Your task to perform on an android device: snooze an email in the gmail app Image 0: 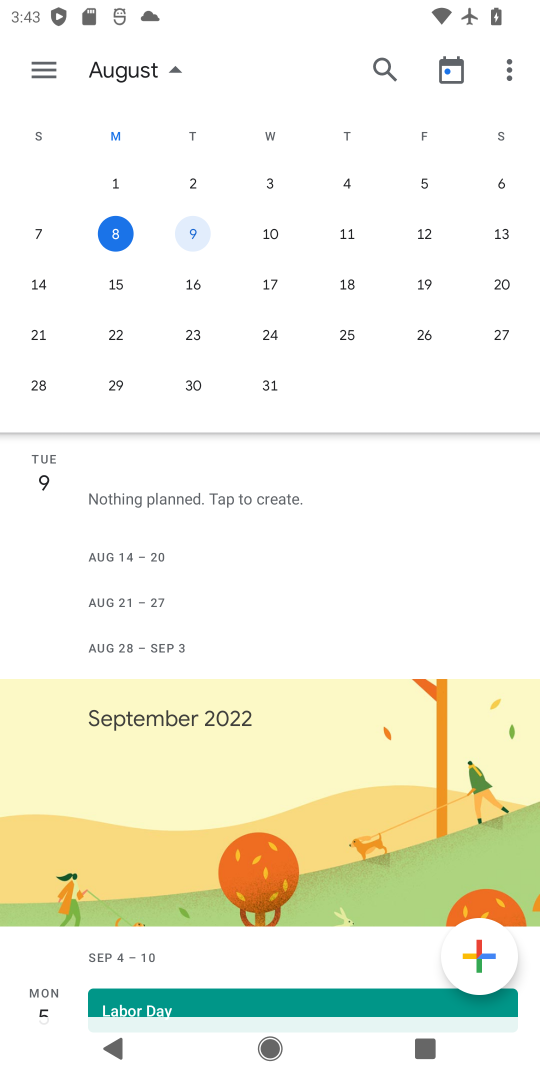
Step 0: press home button
Your task to perform on an android device: snooze an email in the gmail app Image 1: 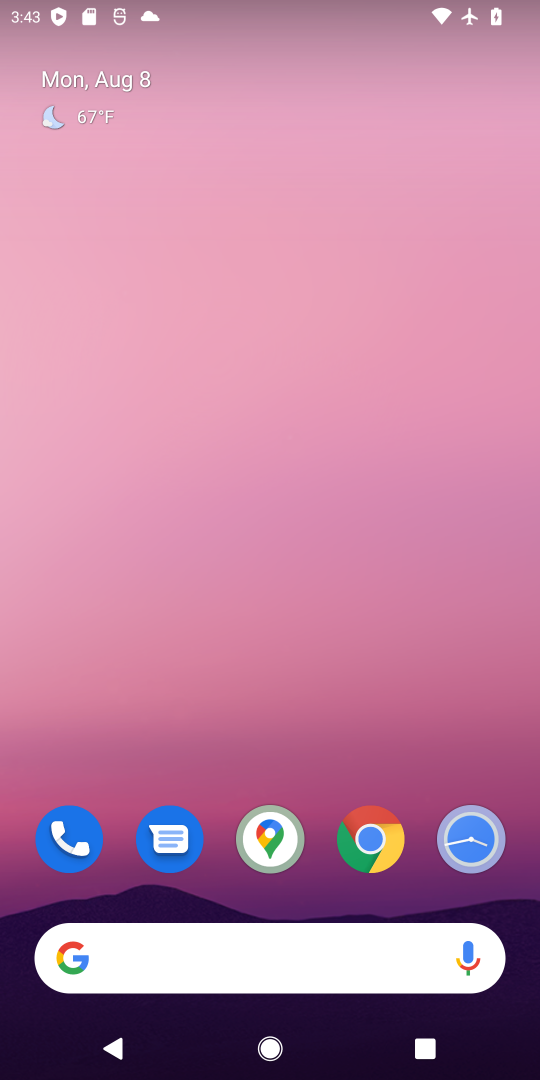
Step 1: drag from (424, 763) to (428, 291)
Your task to perform on an android device: snooze an email in the gmail app Image 2: 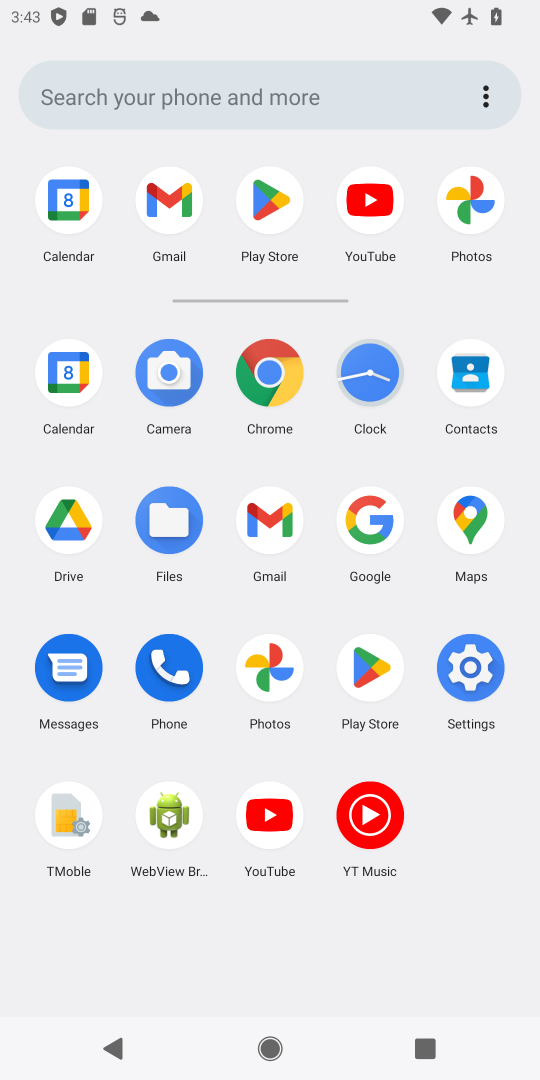
Step 2: click (284, 527)
Your task to perform on an android device: snooze an email in the gmail app Image 3: 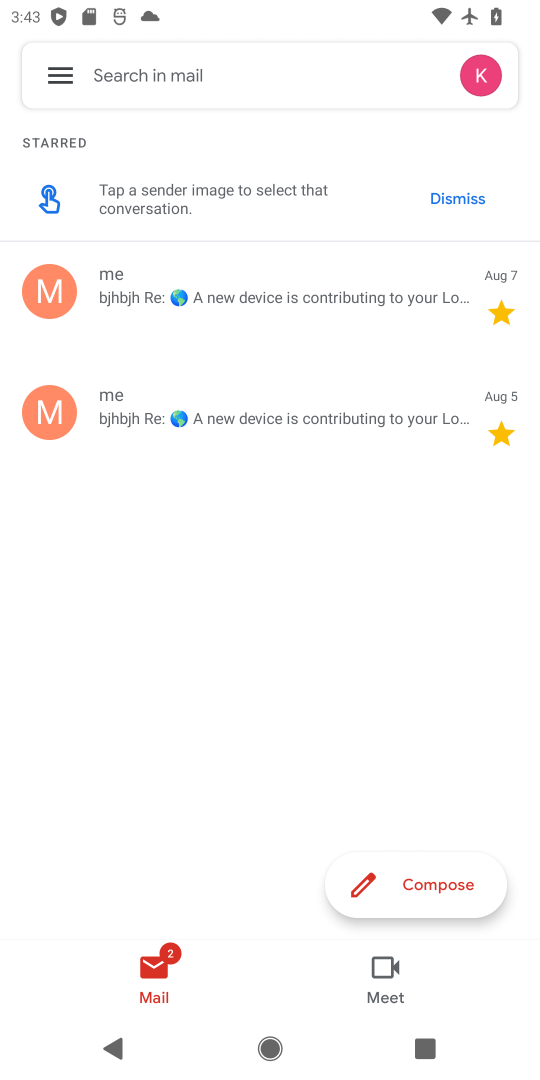
Step 3: click (58, 74)
Your task to perform on an android device: snooze an email in the gmail app Image 4: 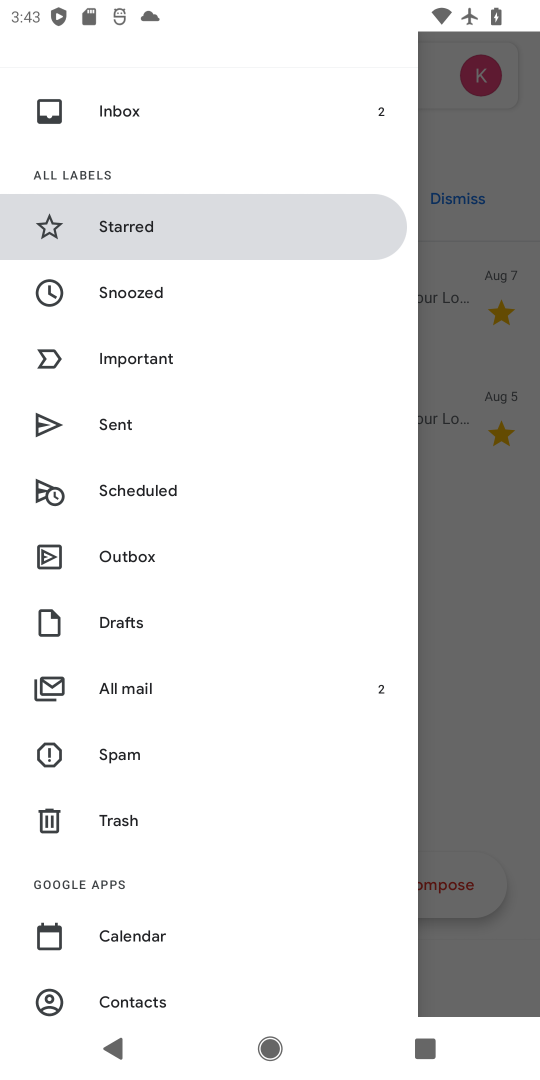
Step 4: click (166, 291)
Your task to perform on an android device: snooze an email in the gmail app Image 5: 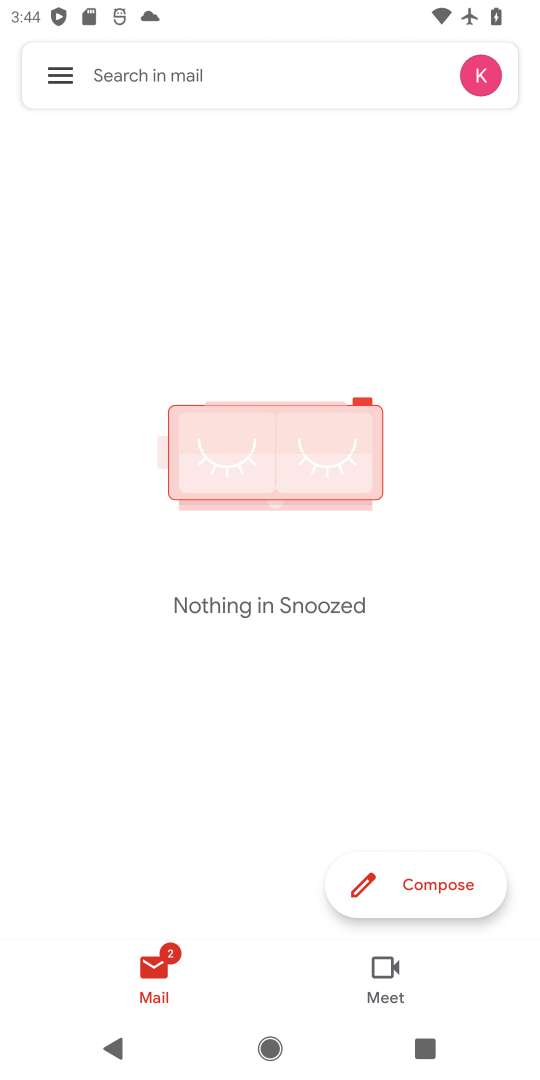
Step 5: task complete